Your task to perform on an android device: What's the weather going to be this weekend? Image 0: 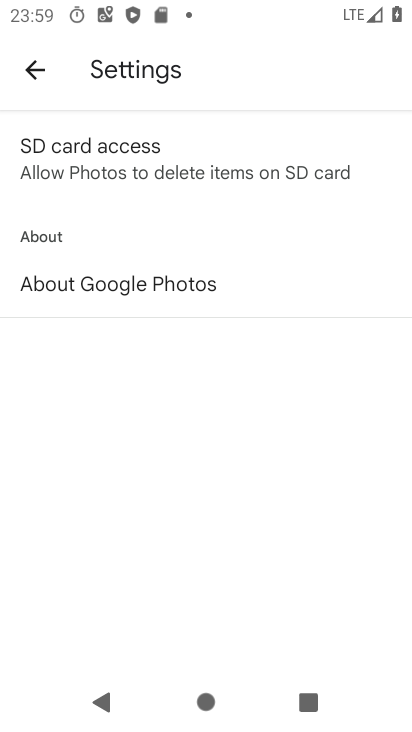
Step 0: press home button
Your task to perform on an android device: What's the weather going to be this weekend? Image 1: 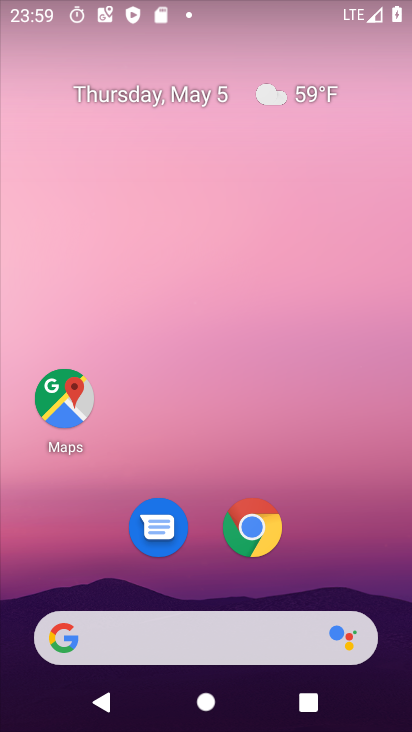
Step 1: click (312, 93)
Your task to perform on an android device: What's the weather going to be this weekend? Image 2: 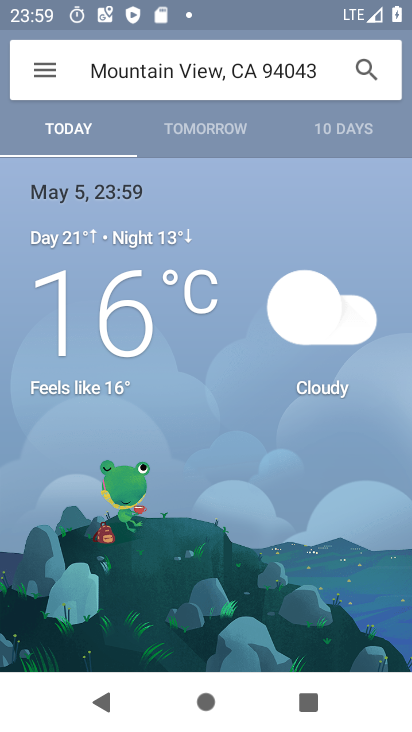
Step 2: click (362, 127)
Your task to perform on an android device: What's the weather going to be this weekend? Image 3: 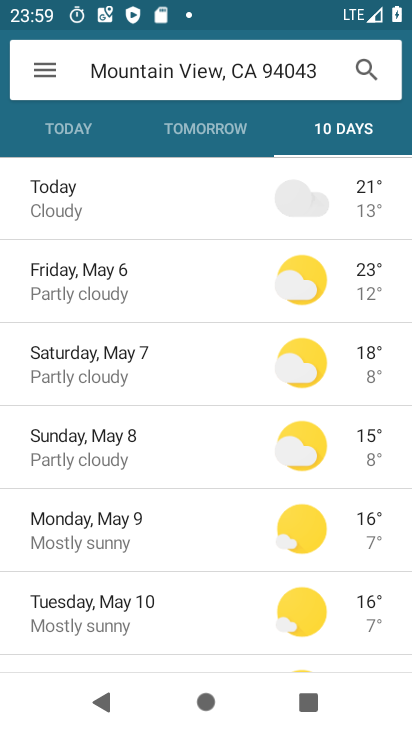
Step 3: task complete